Your task to perform on an android device: Open location settings Image 0: 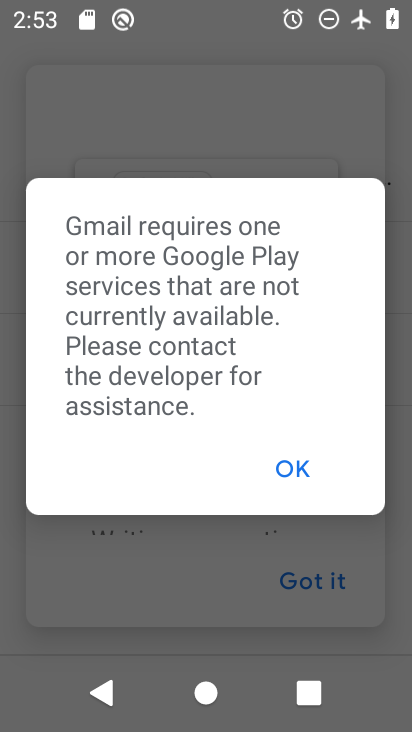
Step 0: press home button
Your task to perform on an android device: Open location settings Image 1: 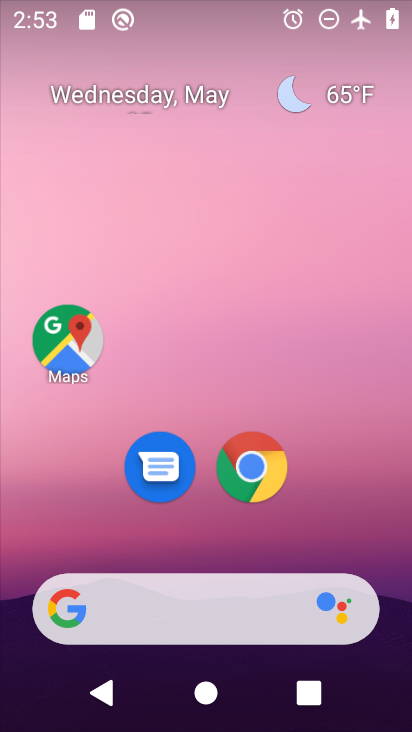
Step 1: drag from (241, 558) to (235, 185)
Your task to perform on an android device: Open location settings Image 2: 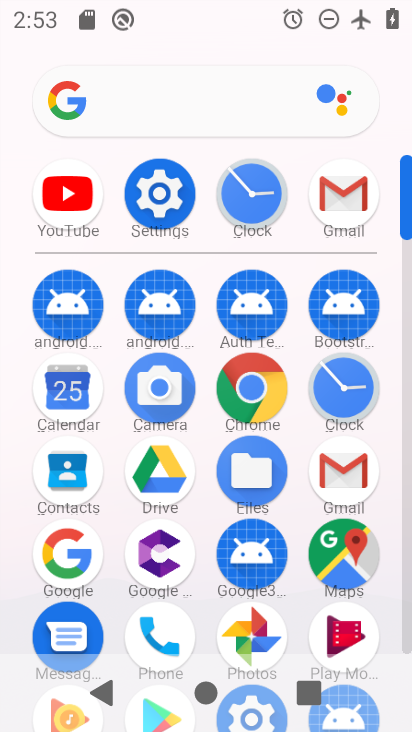
Step 2: click (155, 198)
Your task to perform on an android device: Open location settings Image 3: 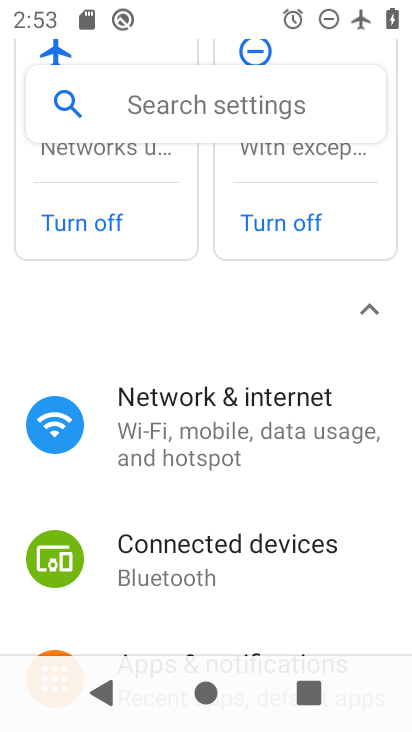
Step 3: drag from (310, 535) to (298, 195)
Your task to perform on an android device: Open location settings Image 4: 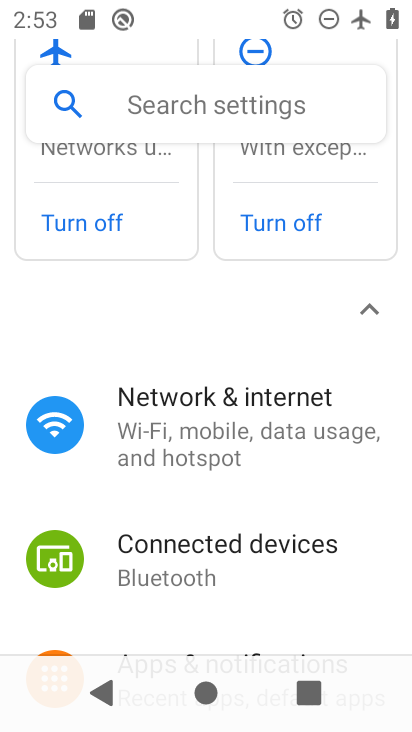
Step 4: drag from (185, 566) to (193, 226)
Your task to perform on an android device: Open location settings Image 5: 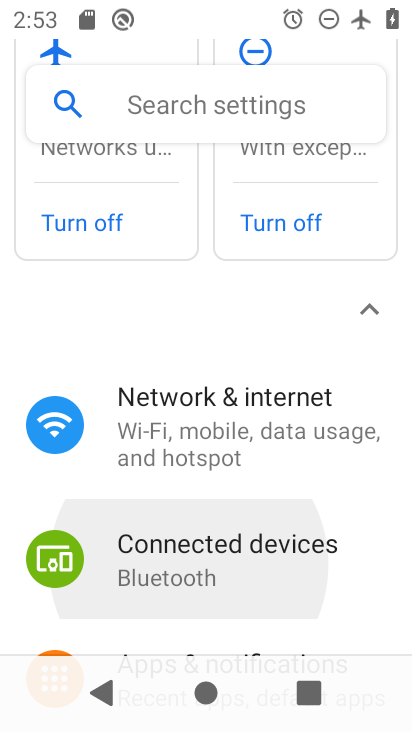
Step 5: drag from (147, 538) to (203, 176)
Your task to perform on an android device: Open location settings Image 6: 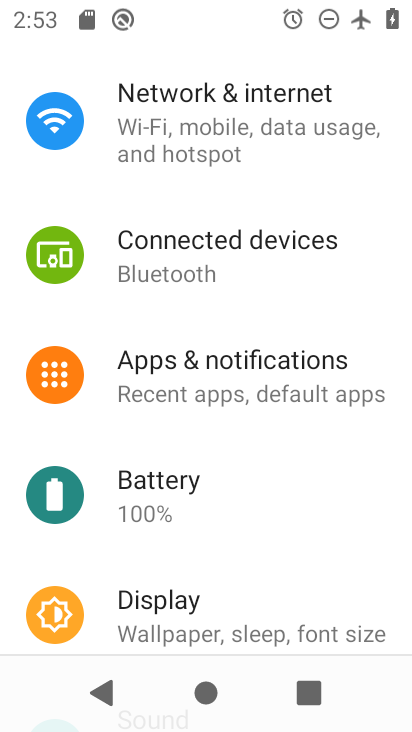
Step 6: drag from (199, 438) to (235, 168)
Your task to perform on an android device: Open location settings Image 7: 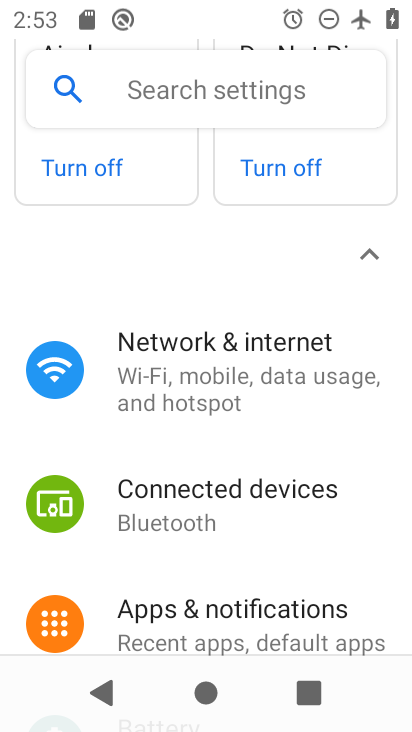
Step 7: drag from (218, 454) to (252, 174)
Your task to perform on an android device: Open location settings Image 8: 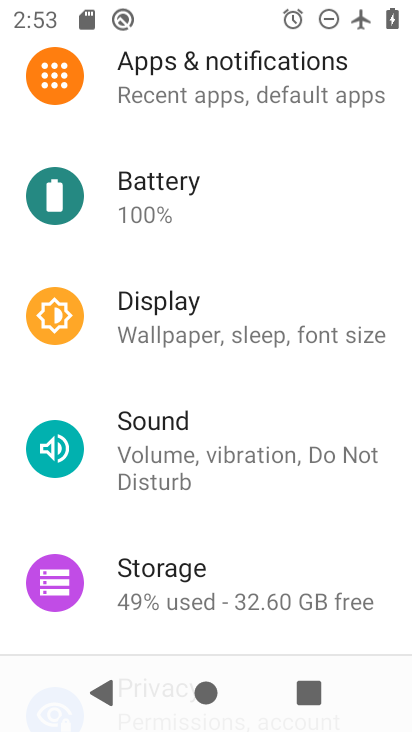
Step 8: drag from (245, 416) to (275, 159)
Your task to perform on an android device: Open location settings Image 9: 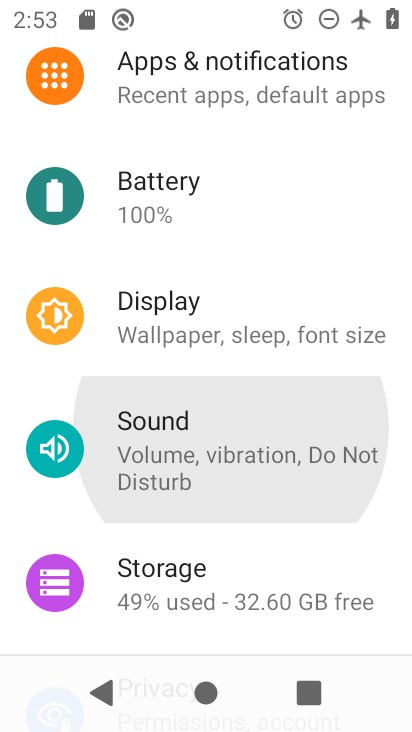
Step 9: drag from (248, 452) to (266, 202)
Your task to perform on an android device: Open location settings Image 10: 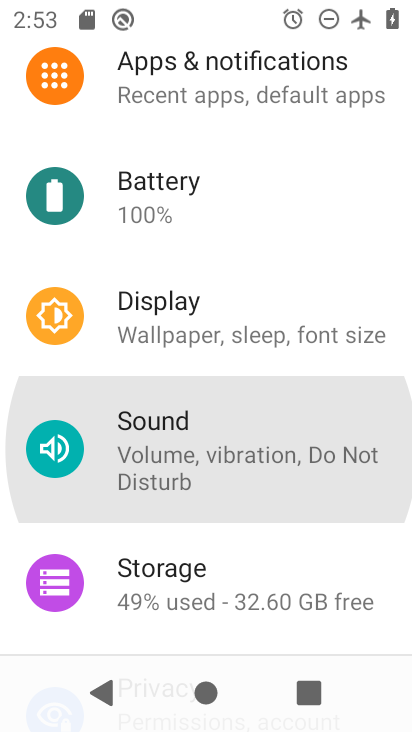
Step 10: drag from (218, 439) to (250, 167)
Your task to perform on an android device: Open location settings Image 11: 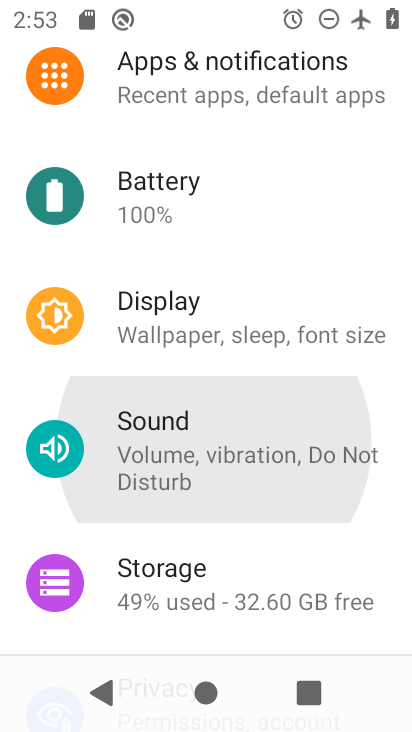
Step 11: drag from (222, 424) to (242, 157)
Your task to perform on an android device: Open location settings Image 12: 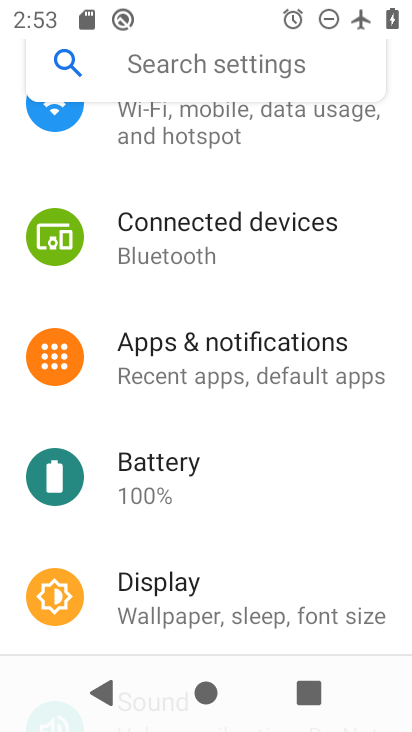
Step 12: drag from (230, 433) to (248, 153)
Your task to perform on an android device: Open location settings Image 13: 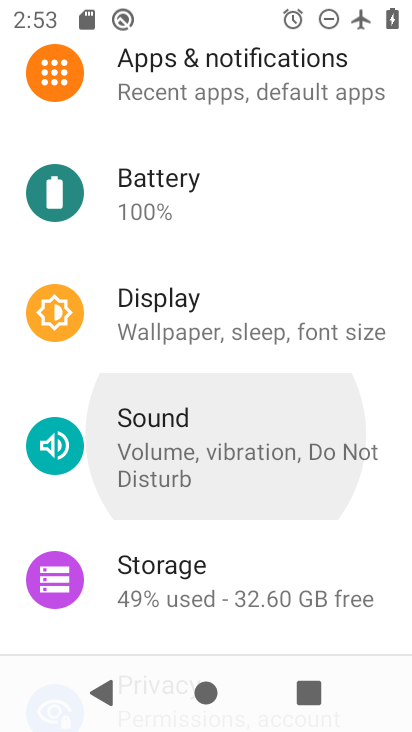
Step 13: drag from (212, 518) to (245, 289)
Your task to perform on an android device: Open location settings Image 14: 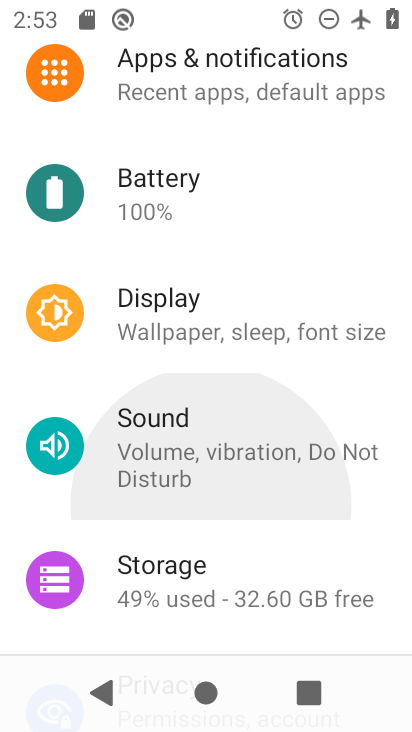
Step 14: drag from (269, 537) to (201, 267)
Your task to perform on an android device: Open location settings Image 15: 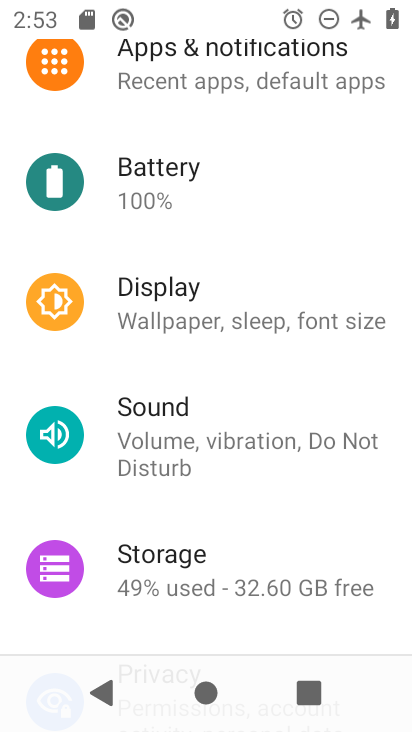
Step 15: drag from (203, 535) to (232, 296)
Your task to perform on an android device: Open location settings Image 16: 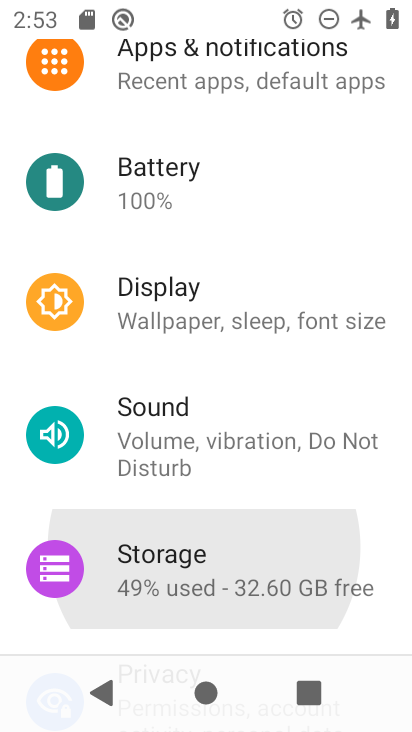
Step 16: drag from (221, 496) to (247, 297)
Your task to perform on an android device: Open location settings Image 17: 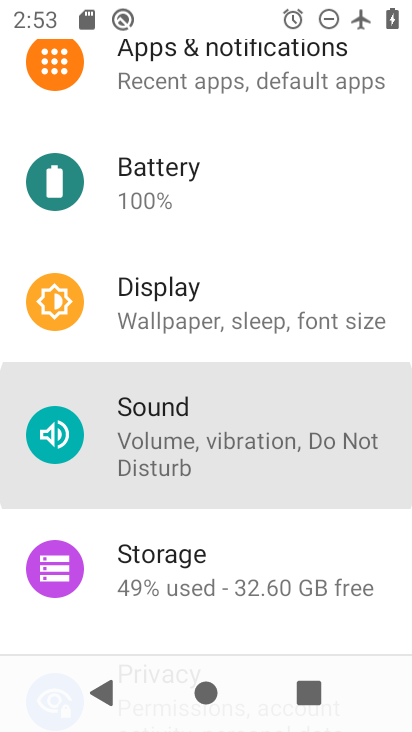
Step 17: drag from (267, 509) to (270, 266)
Your task to perform on an android device: Open location settings Image 18: 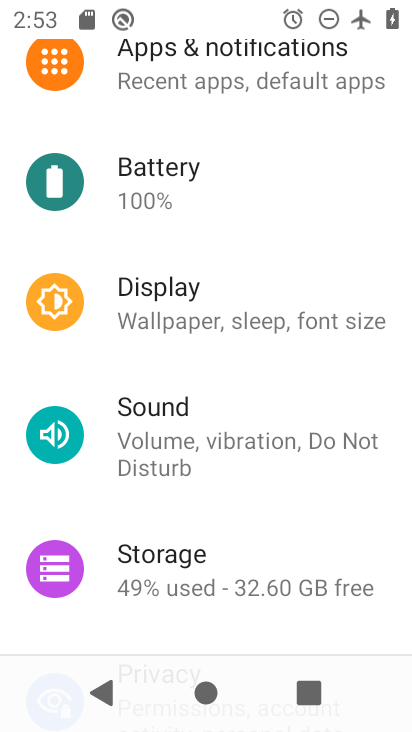
Step 18: drag from (205, 374) to (201, 153)
Your task to perform on an android device: Open location settings Image 19: 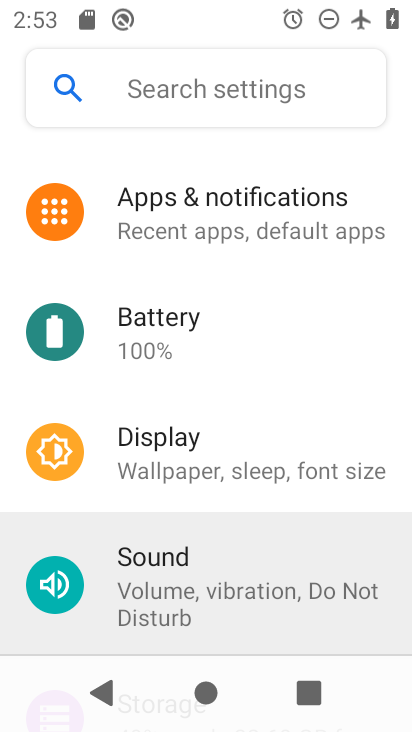
Step 19: drag from (166, 490) to (208, 105)
Your task to perform on an android device: Open location settings Image 20: 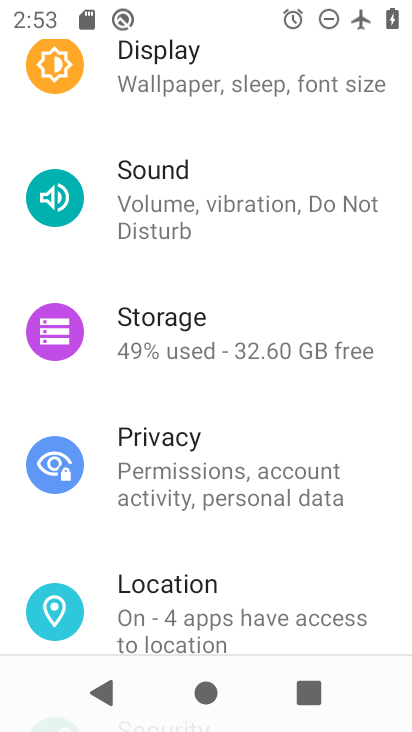
Step 20: drag from (185, 358) to (207, 193)
Your task to perform on an android device: Open location settings Image 21: 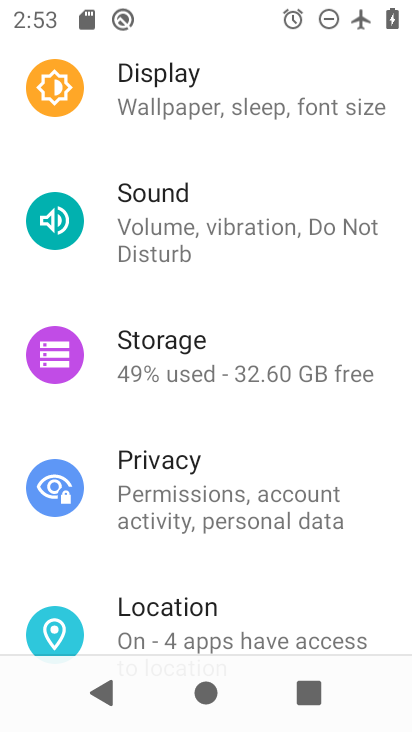
Step 21: drag from (218, 492) to (220, 257)
Your task to perform on an android device: Open location settings Image 22: 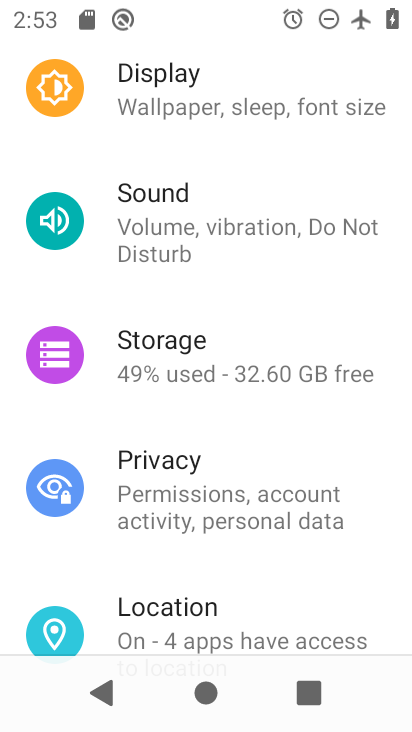
Step 22: click (183, 616)
Your task to perform on an android device: Open location settings Image 23: 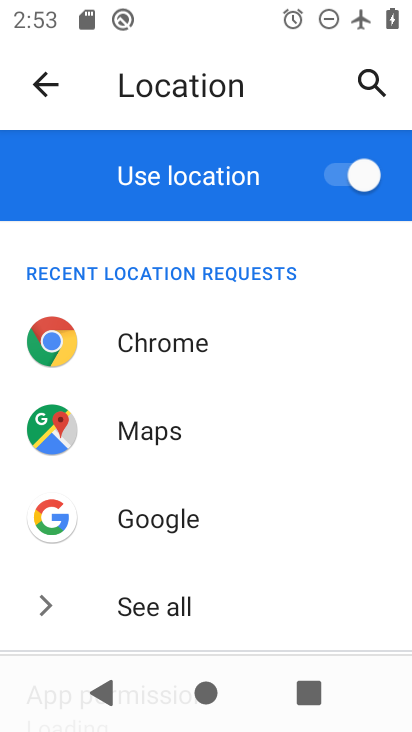
Step 23: task complete